Your task to perform on an android device: Open settings Image 0: 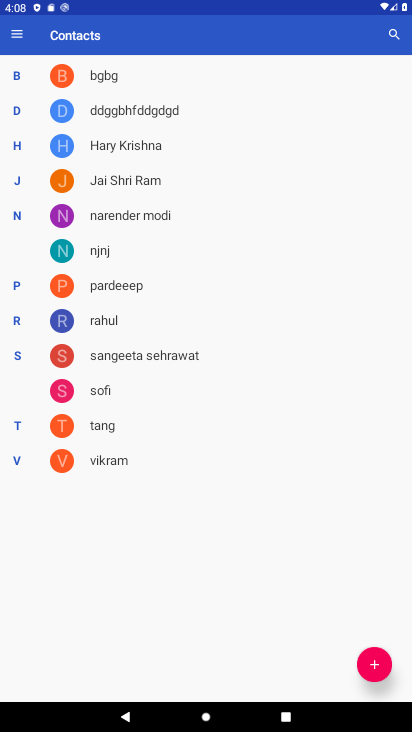
Step 0: press home button
Your task to perform on an android device: Open settings Image 1: 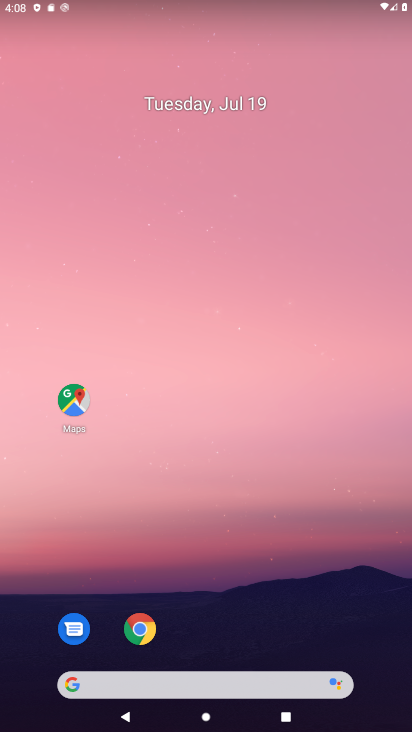
Step 1: drag from (186, 665) to (201, 176)
Your task to perform on an android device: Open settings Image 2: 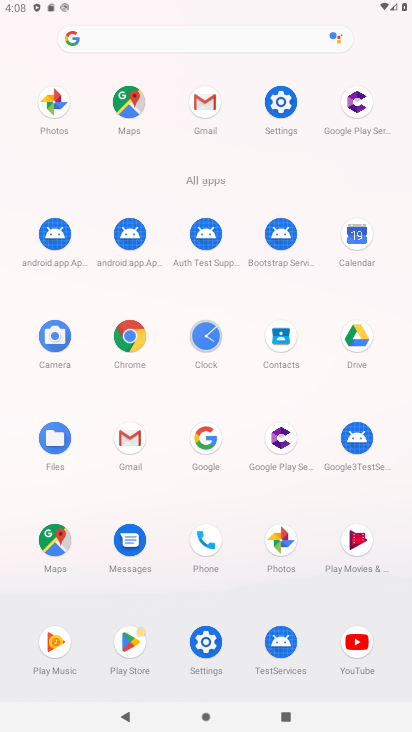
Step 2: click (290, 108)
Your task to perform on an android device: Open settings Image 3: 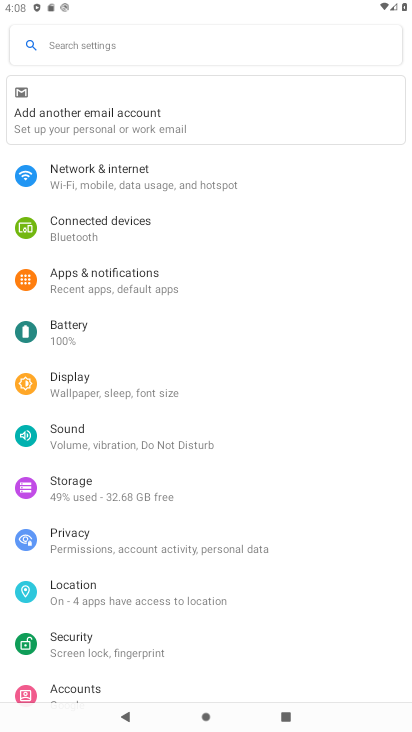
Step 3: task complete